Your task to perform on an android device: Open my contact list Image 0: 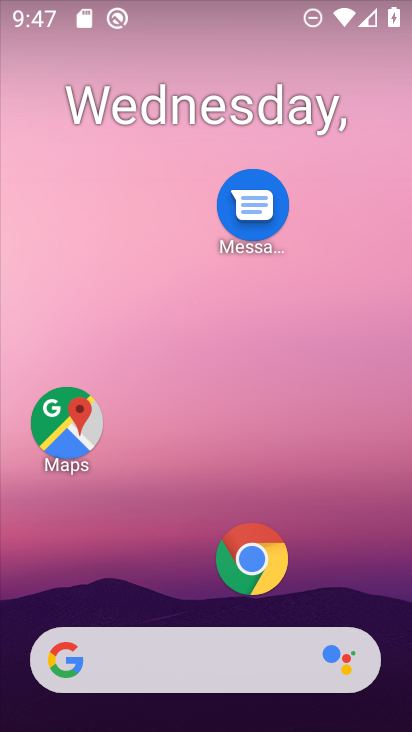
Step 0: drag from (312, 594) to (286, 178)
Your task to perform on an android device: Open my contact list Image 1: 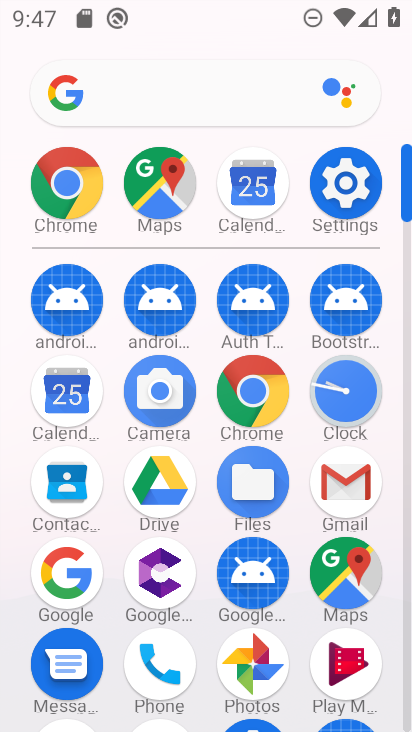
Step 1: click (63, 493)
Your task to perform on an android device: Open my contact list Image 2: 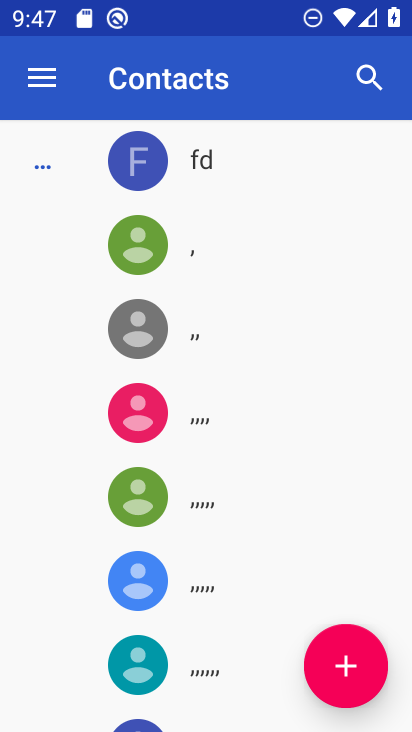
Step 2: task complete